Your task to perform on an android device: What's on my calendar today? Image 0: 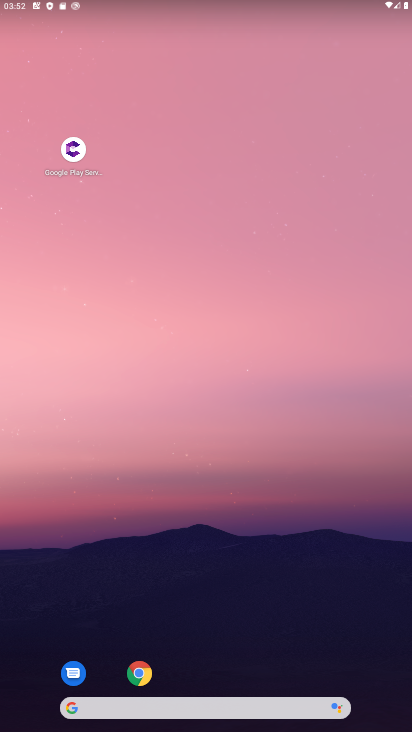
Step 0: drag from (313, 605) to (311, 0)
Your task to perform on an android device: What's on my calendar today? Image 1: 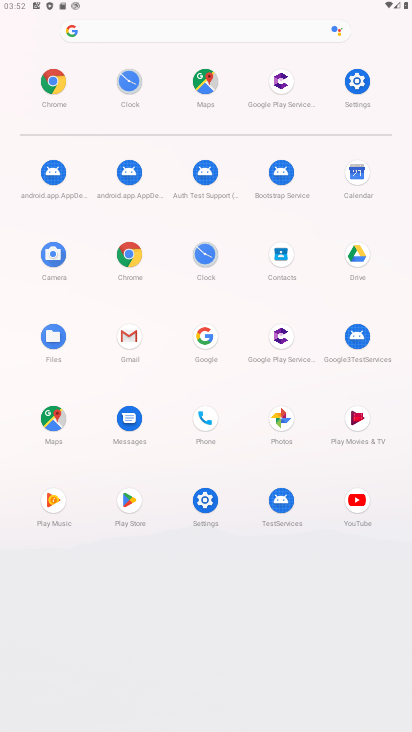
Step 1: click (365, 171)
Your task to perform on an android device: What's on my calendar today? Image 2: 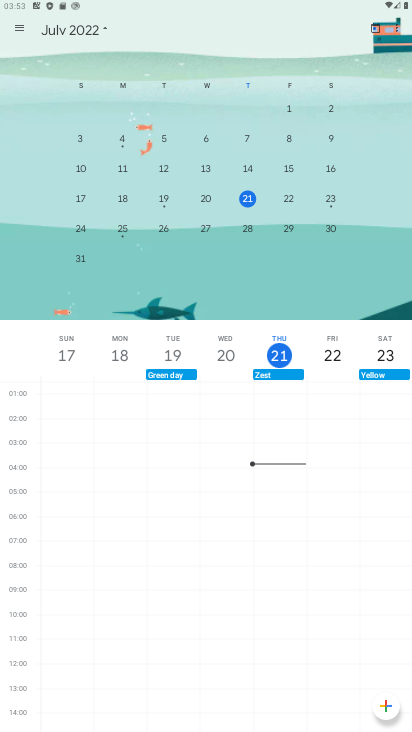
Step 2: click (248, 200)
Your task to perform on an android device: What's on my calendar today? Image 3: 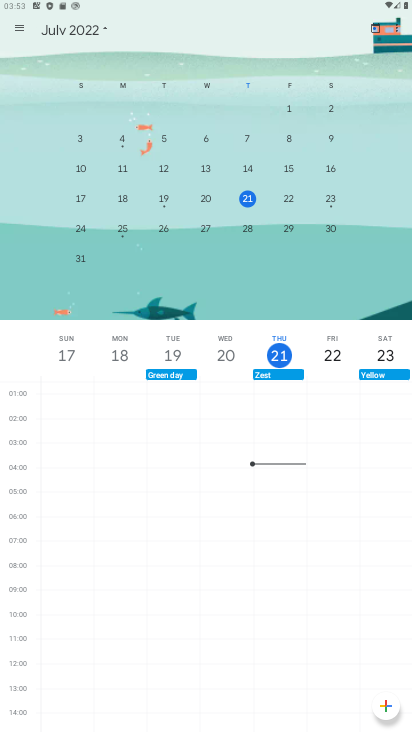
Step 3: click (278, 356)
Your task to perform on an android device: What's on my calendar today? Image 4: 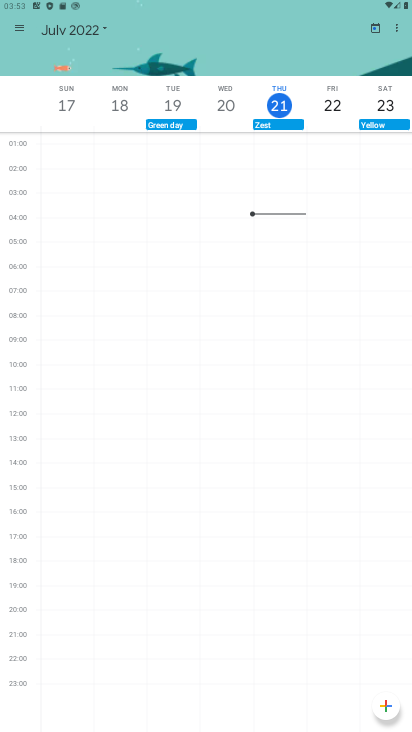
Step 4: click (286, 108)
Your task to perform on an android device: What's on my calendar today? Image 5: 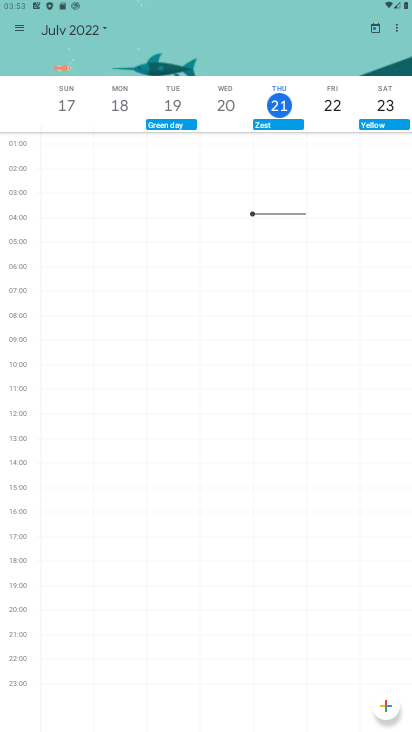
Step 5: click (285, 107)
Your task to perform on an android device: What's on my calendar today? Image 6: 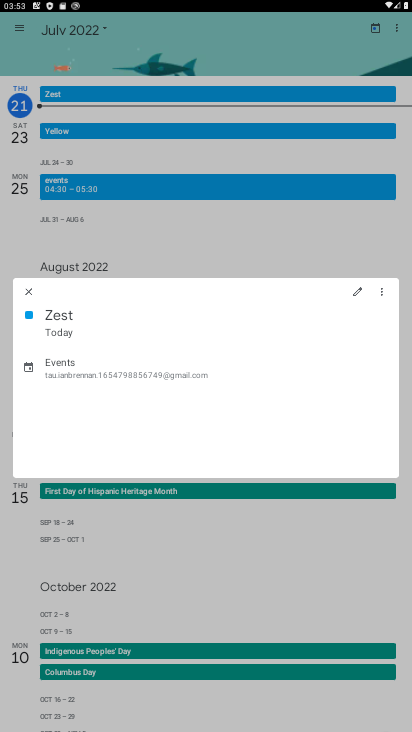
Step 6: task complete